Your task to perform on an android device: Open location settings Image 0: 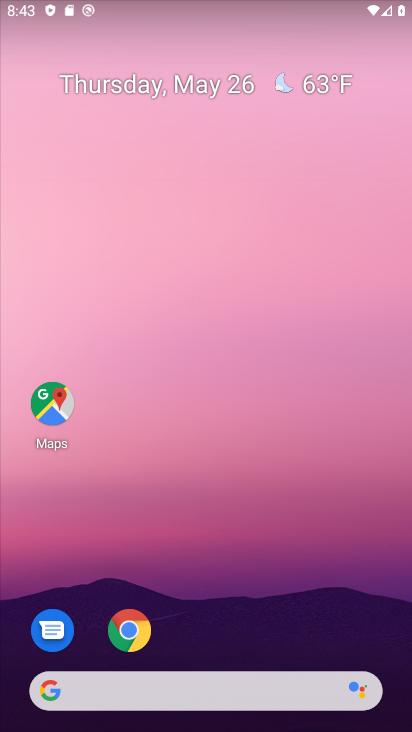
Step 0: drag from (273, 704) to (220, 357)
Your task to perform on an android device: Open location settings Image 1: 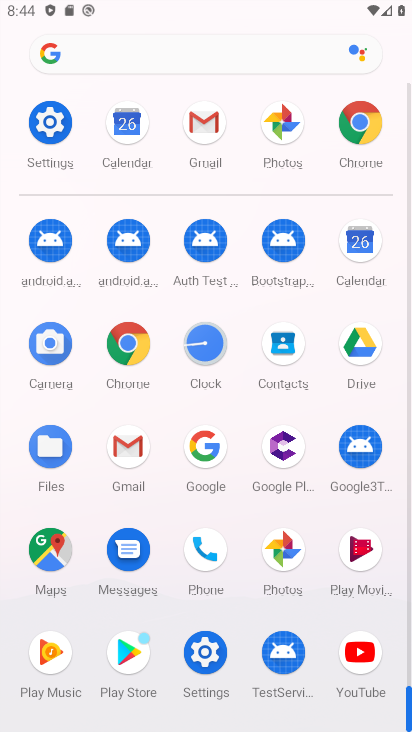
Step 1: click (210, 652)
Your task to perform on an android device: Open location settings Image 2: 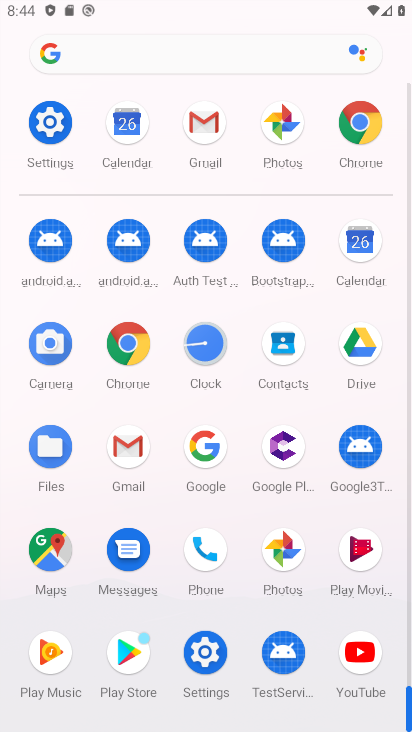
Step 2: click (209, 653)
Your task to perform on an android device: Open location settings Image 3: 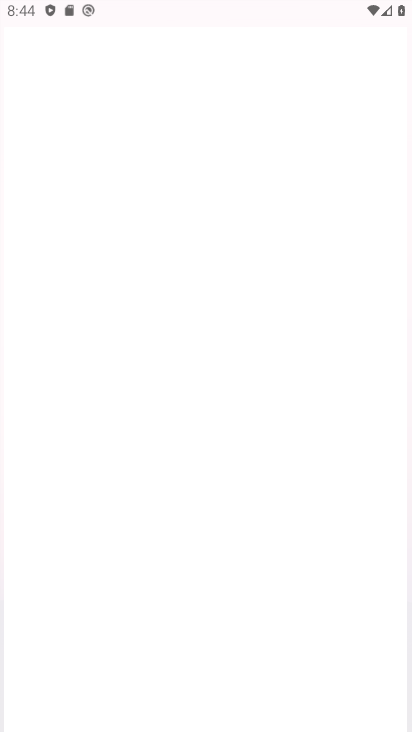
Step 3: click (215, 660)
Your task to perform on an android device: Open location settings Image 4: 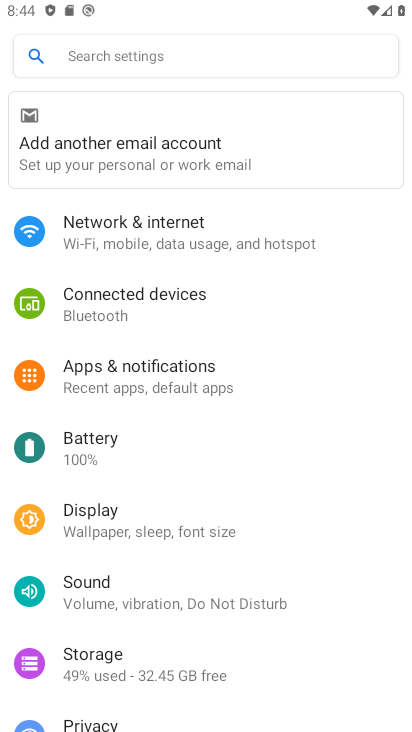
Step 4: drag from (118, 490) to (118, 36)
Your task to perform on an android device: Open location settings Image 5: 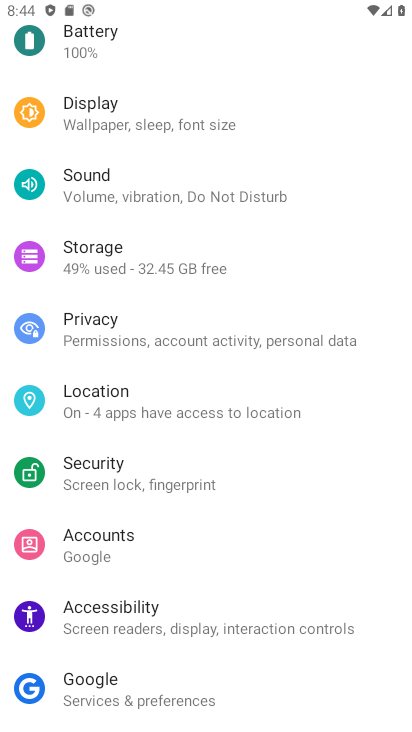
Step 5: drag from (163, 458) to (163, 152)
Your task to perform on an android device: Open location settings Image 6: 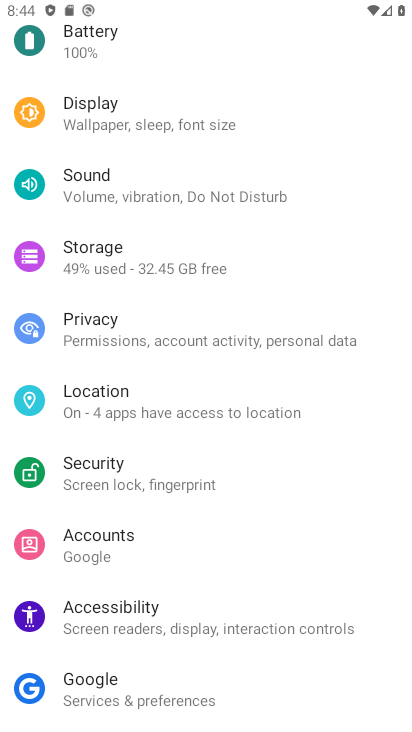
Step 6: click (94, 414)
Your task to perform on an android device: Open location settings Image 7: 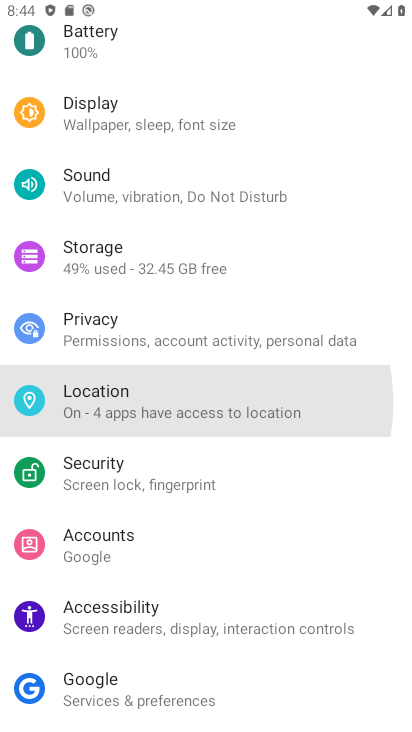
Step 7: click (98, 410)
Your task to perform on an android device: Open location settings Image 8: 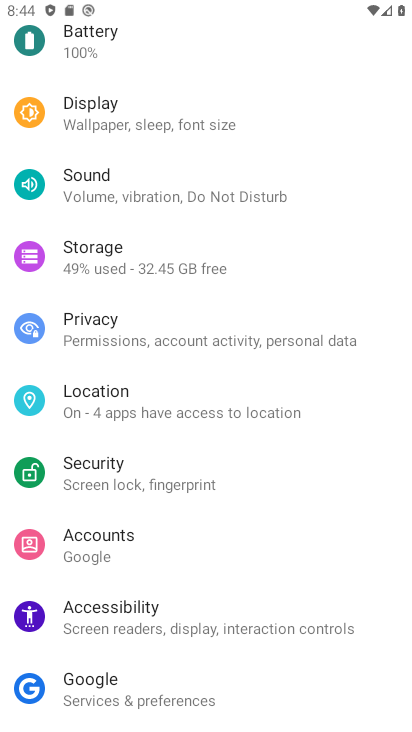
Step 8: click (98, 410)
Your task to perform on an android device: Open location settings Image 9: 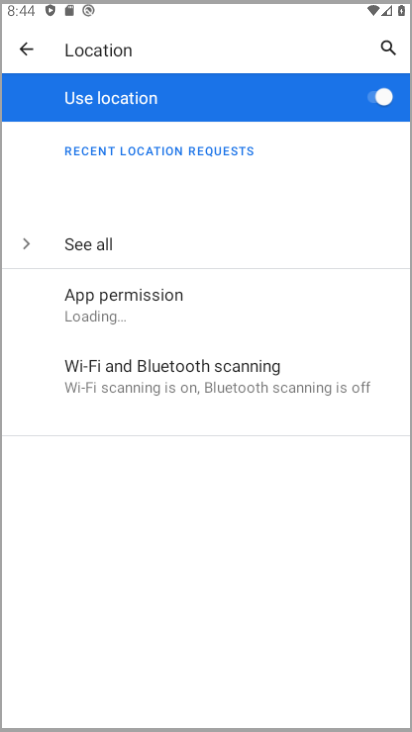
Step 9: click (99, 409)
Your task to perform on an android device: Open location settings Image 10: 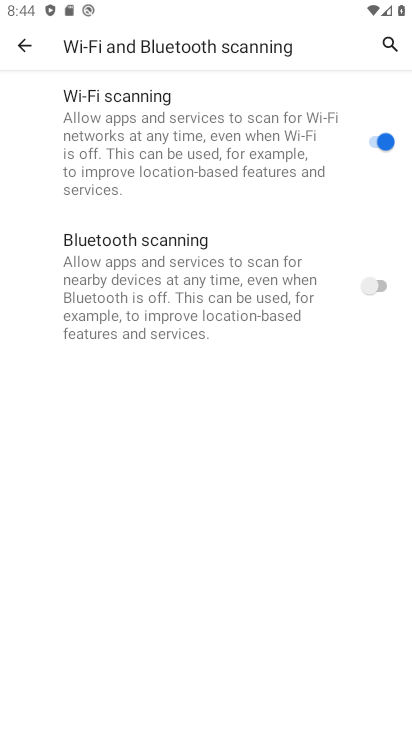
Step 10: task complete